Your task to perform on an android device: turn pop-ups on in chrome Image 0: 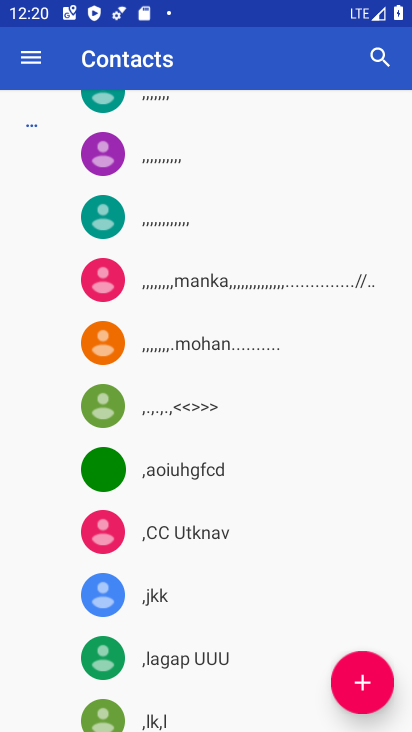
Step 0: press home button
Your task to perform on an android device: turn pop-ups on in chrome Image 1: 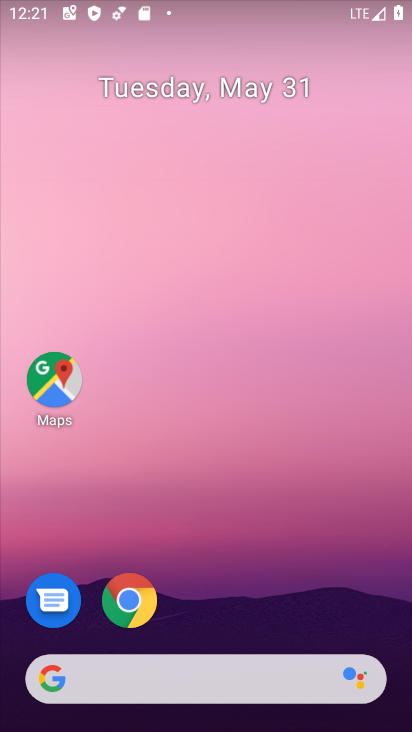
Step 1: click (136, 593)
Your task to perform on an android device: turn pop-ups on in chrome Image 2: 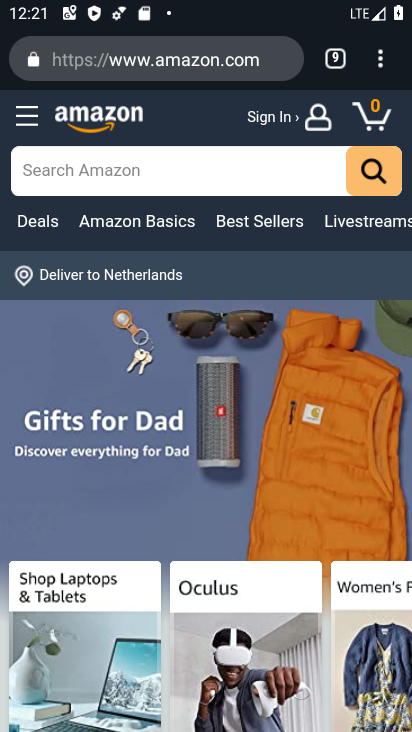
Step 2: click (382, 67)
Your task to perform on an android device: turn pop-ups on in chrome Image 3: 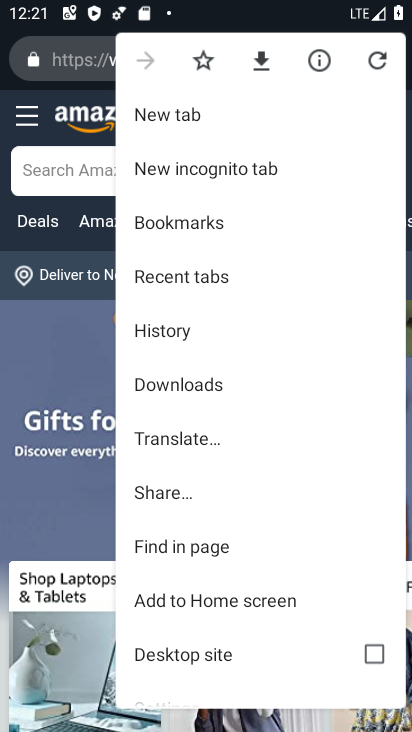
Step 3: drag from (175, 662) to (164, 225)
Your task to perform on an android device: turn pop-ups on in chrome Image 4: 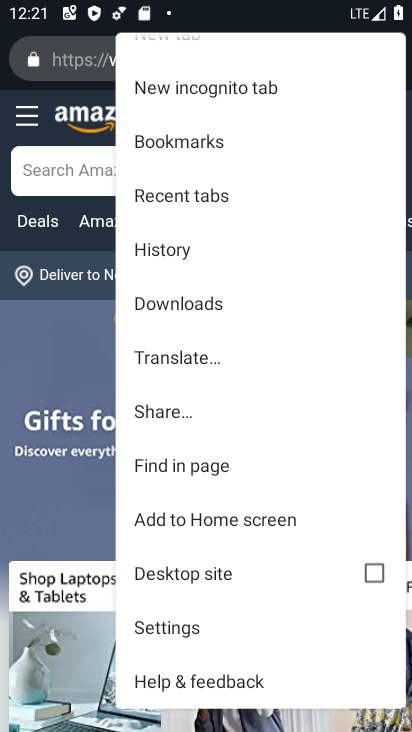
Step 4: click (174, 630)
Your task to perform on an android device: turn pop-ups on in chrome Image 5: 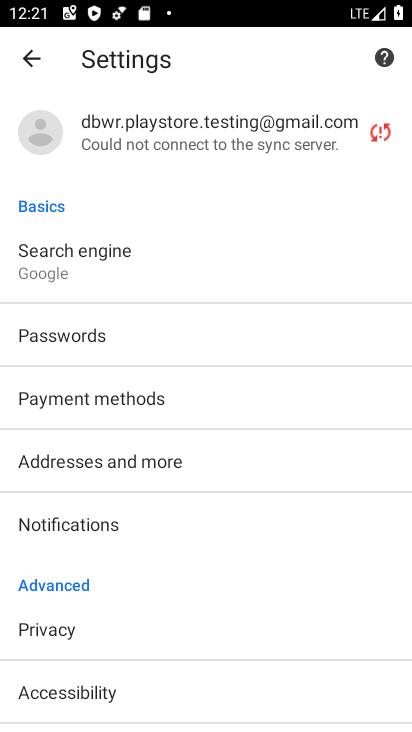
Step 5: drag from (119, 715) to (133, 224)
Your task to perform on an android device: turn pop-ups on in chrome Image 6: 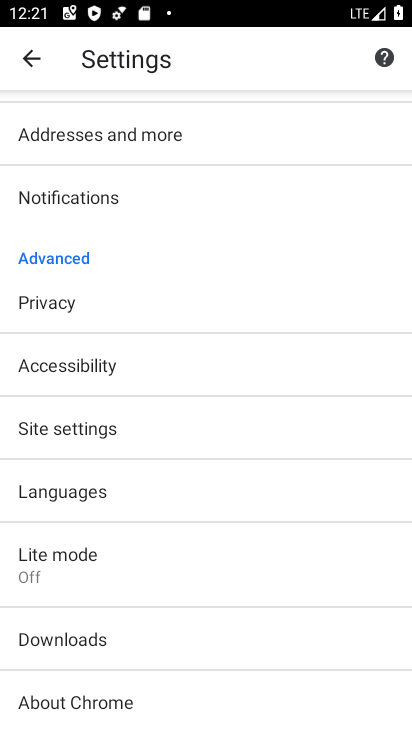
Step 6: click (71, 426)
Your task to perform on an android device: turn pop-ups on in chrome Image 7: 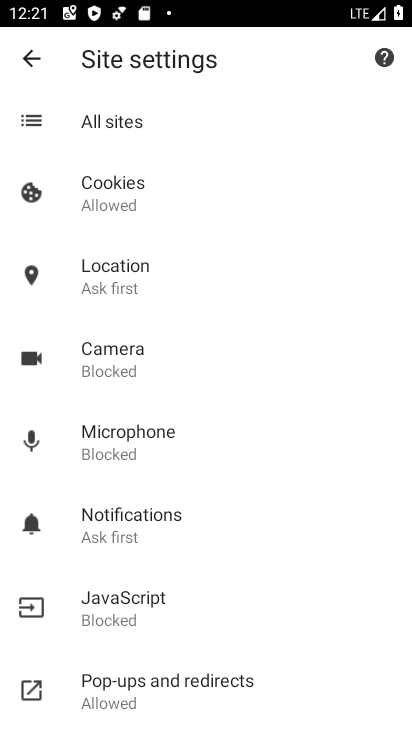
Step 7: click (105, 690)
Your task to perform on an android device: turn pop-ups on in chrome Image 8: 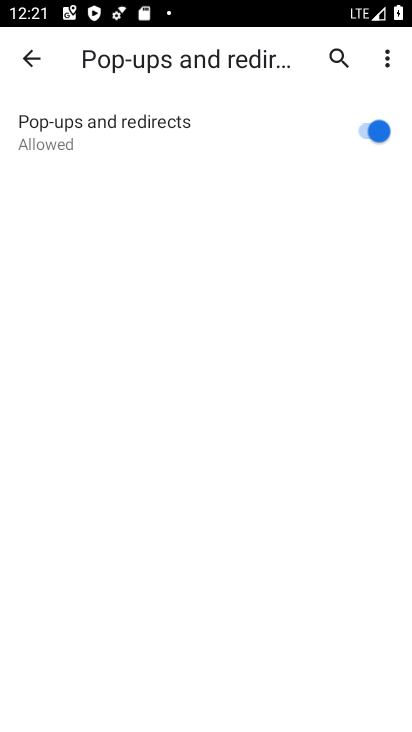
Step 8: task complete